Your task to perform on an android device: set the timer Image 0: 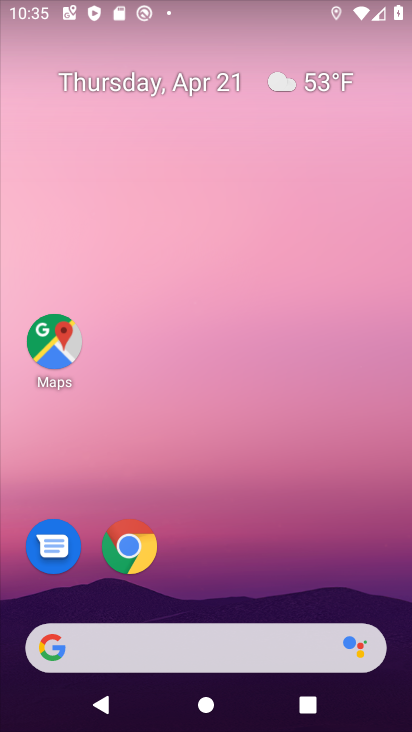
Step 0: drag from (251, 562) to (173, 256)
Your task to perform on an android device: set the timer Image 1: 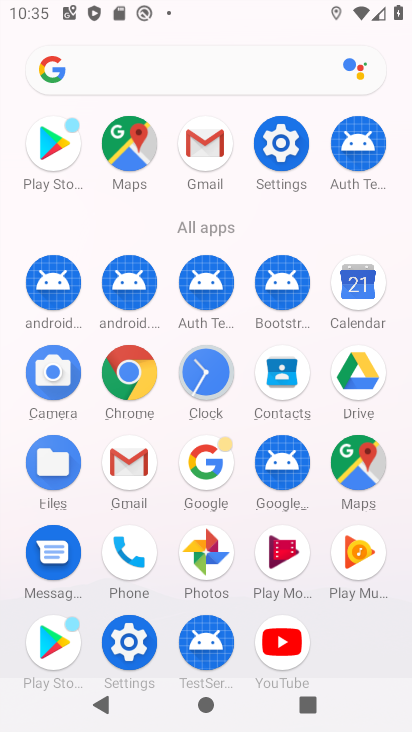
Step 1: click (212, 384)
Your task to perform on an android device: set the timer Image 2: 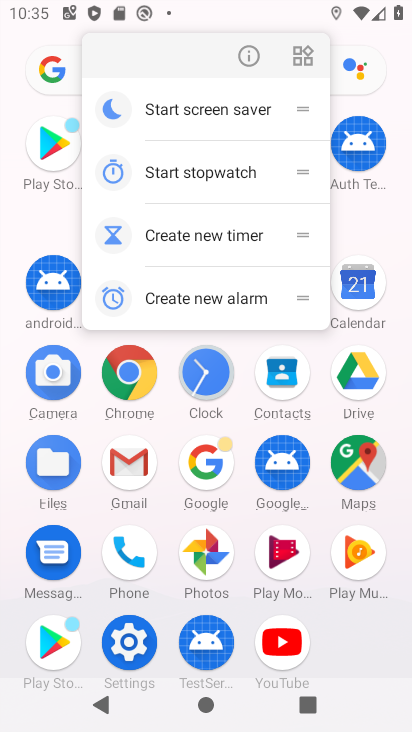
Step 2: click (212, 385)
Your task to perform on an android device: set the timer Image 3: 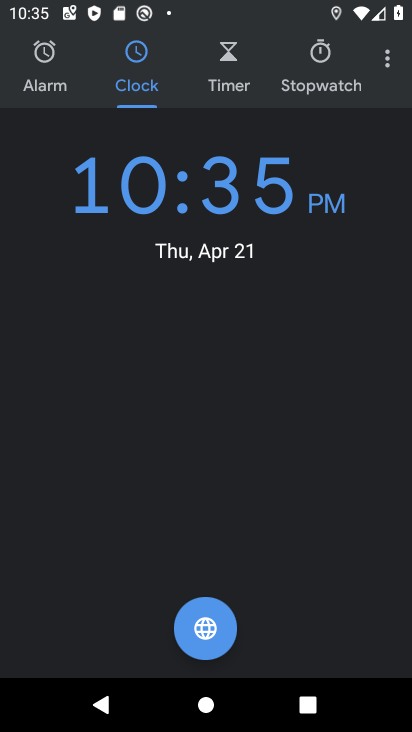
Step 3: click (233, 84)
Your task to perform on an android device: set the timer Image 4: 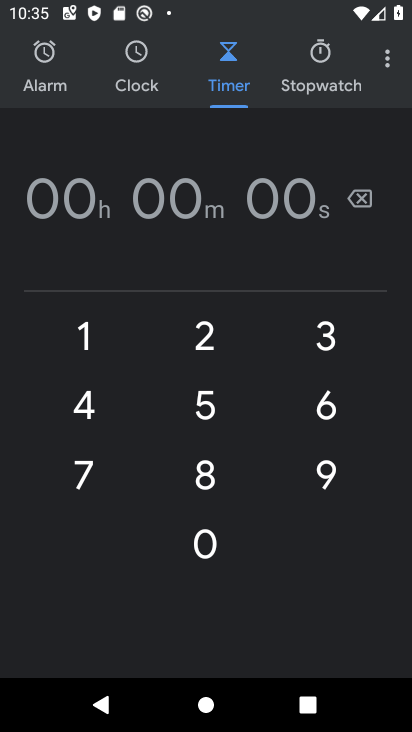
Step 4: click (87, 354)
Your task to perform on an android device: set the timer Image 5: 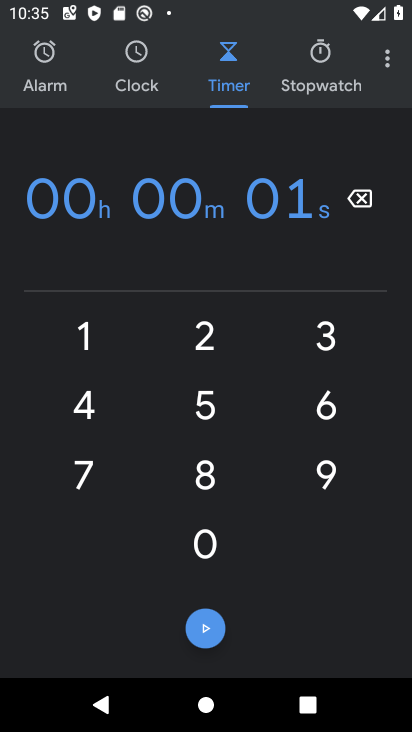
Step 5: click (206, 564)
Your task to perform on an android device: set the timer Image 6: 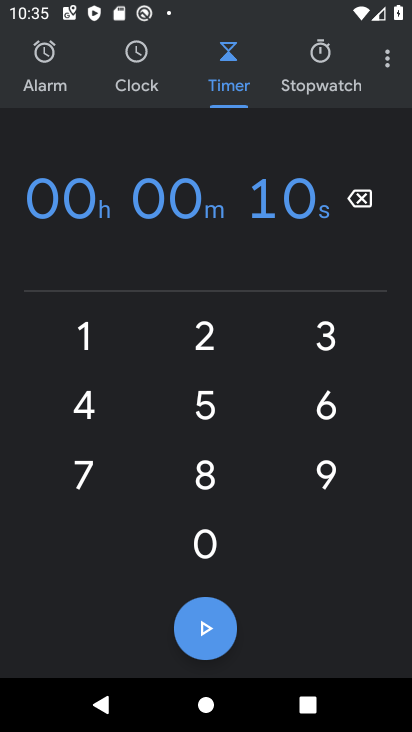
Step 6: click (199, 350)
Your task to perform on an android device: set the timer Image 7: 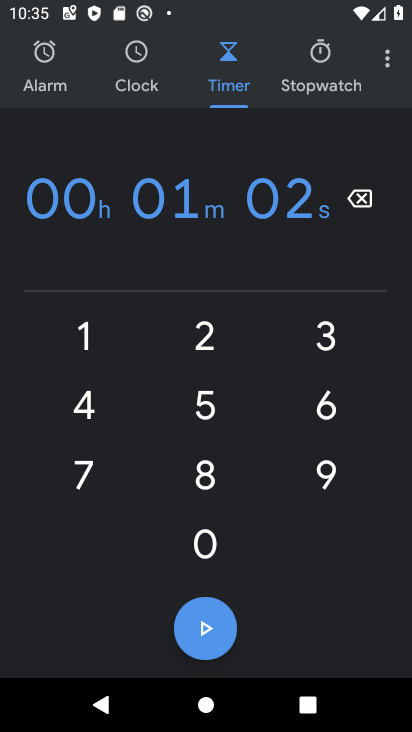
Step 7: click (210, 561)
Your task to perform on an android device: set the timer Image 8: 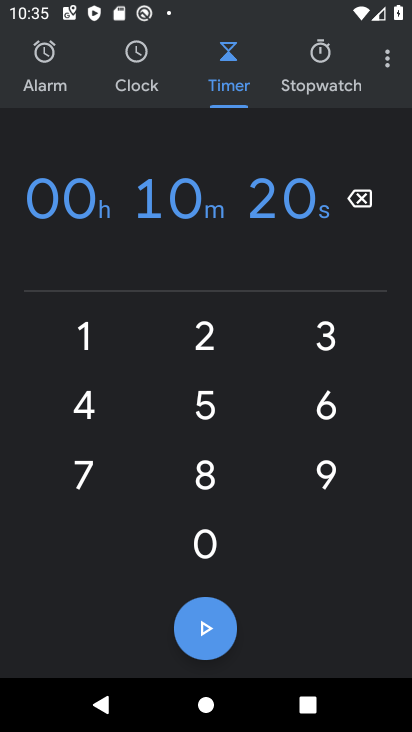
Step 8: click (208, 647)
Your task to perform on an android device: set the timer Image 9: 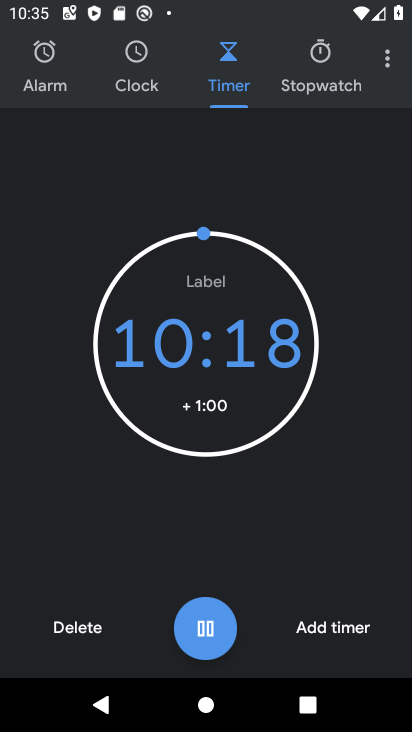
Step 9: click (332, 638)
Your task to perform on an android device: set the timer Image 10: 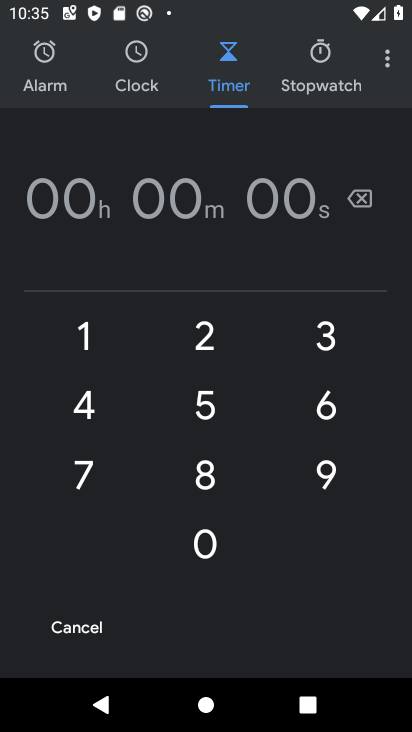
Step 10: task complete